Your task to perform on an android device: delete a single message in the gmail app Image 0: 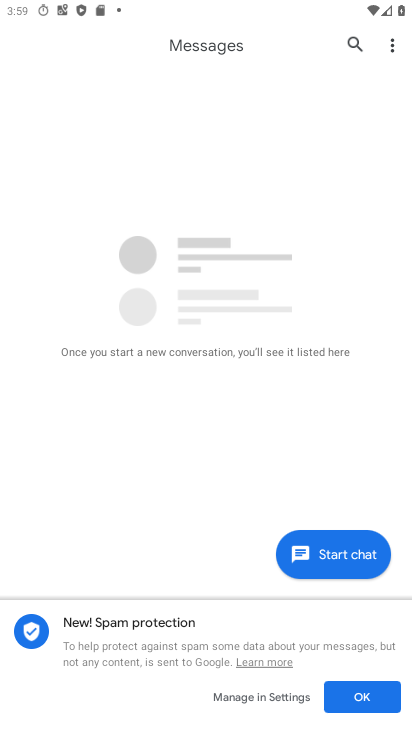
Step 0: drag from (214, 639) to (174, 291)
Your task to perform on an android device: delete a single message in the gmail app Image 1: 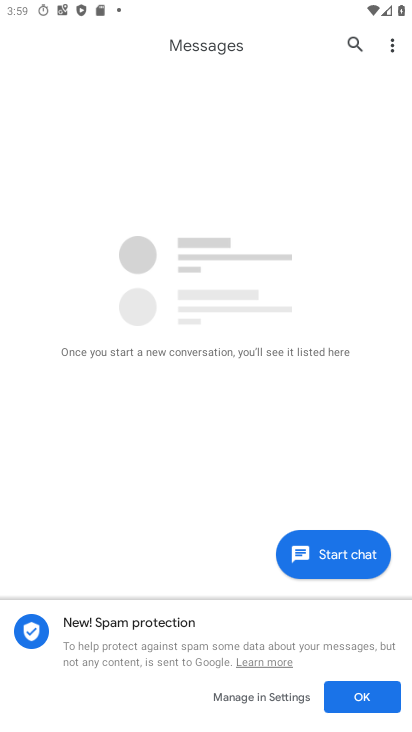
Step 1: press home button
Your task to perform on an android device: delete a single message in the gmail app Image 2: 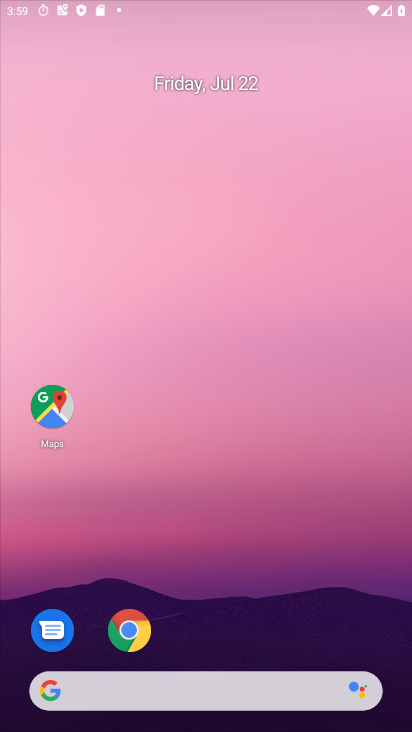
Step 2: drag from (241, 709) to (210, 78)
Your task to perform on an android device: delete a single message in the gmail app Image 3: 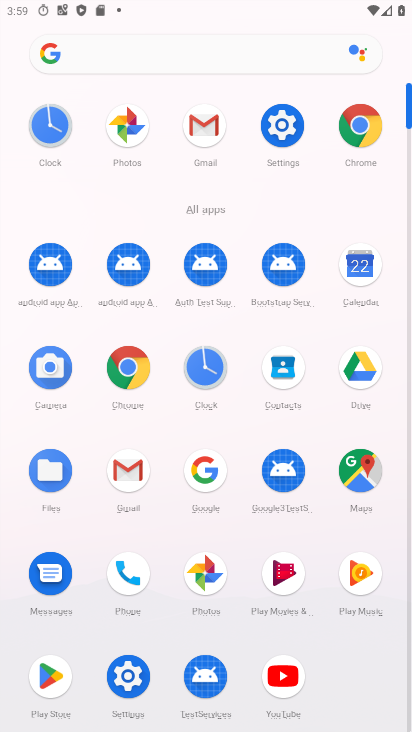
Step 3: click (126, 475)
Your task to perform on an android device: delete a single message in the gmail app Image 4: 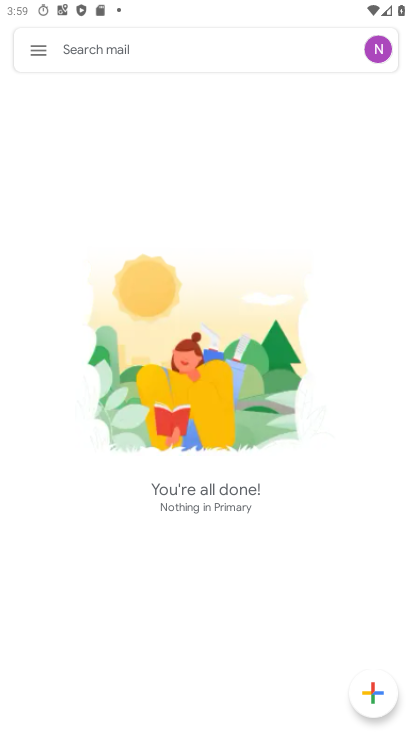
Step 4: task complete